Your task to perform on an android device: open device folders in google photos Image 0: 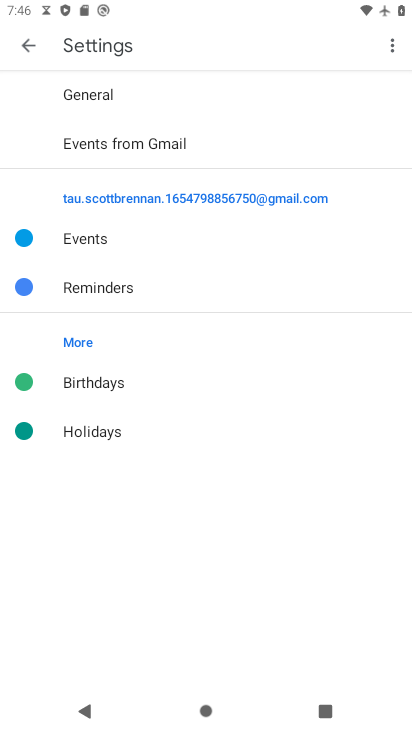
Step 0: press home button
Your task to perform on an android device: open device folders in google photos Image 1: 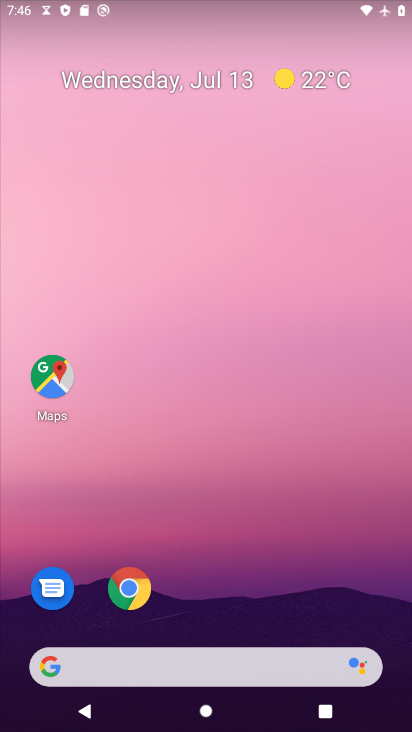
Step 1: drag from (231, 611) to (221, 306)
Your task to perform on an android device: open device folders in google photos Image 2: 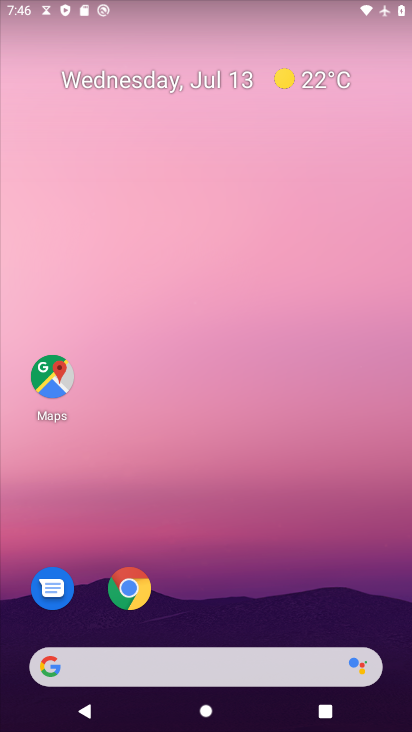
Step 2: drag from (192, 553) to (166, 366)
Your task to perform on an android device: open device folders in google photos Image 3: 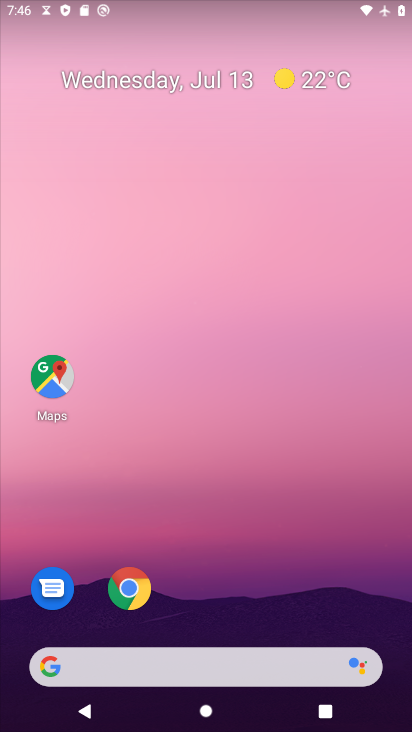
Step 3: drag from (234, 656) to (143, 233)
Your task to perform on an android device: open device folders in google photos Image 4: 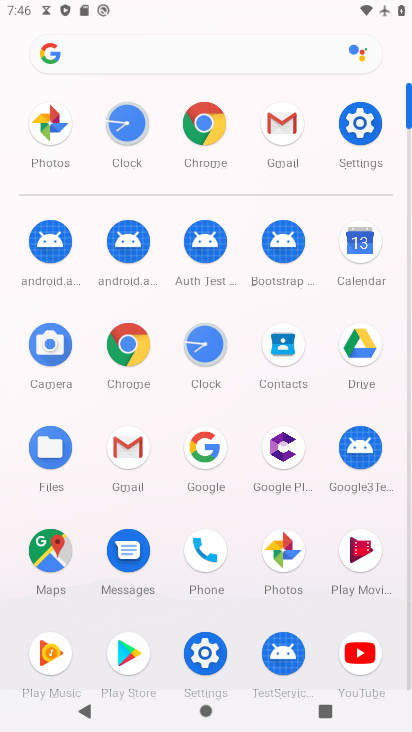
Step 4: click (281, 543)
Your task to perform on an android device: open device folders in google photos Image 5: 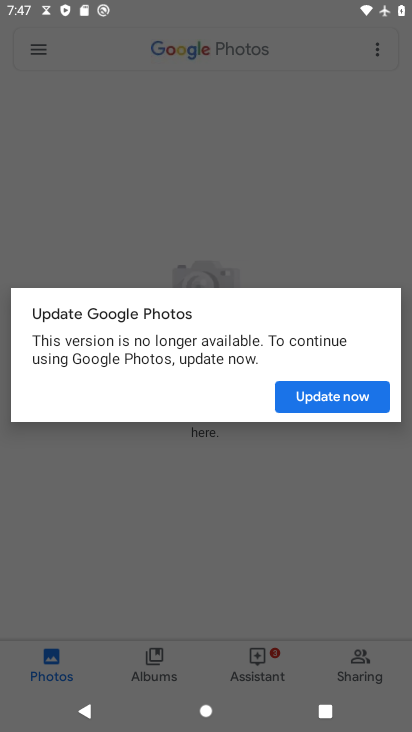
Step 5: task complete